Your task to perform on an android device: open app "Truecaller" (install if not already installed) and enter user name: "coauthor@gmail.com" and password: "quadrangle" Image 0: 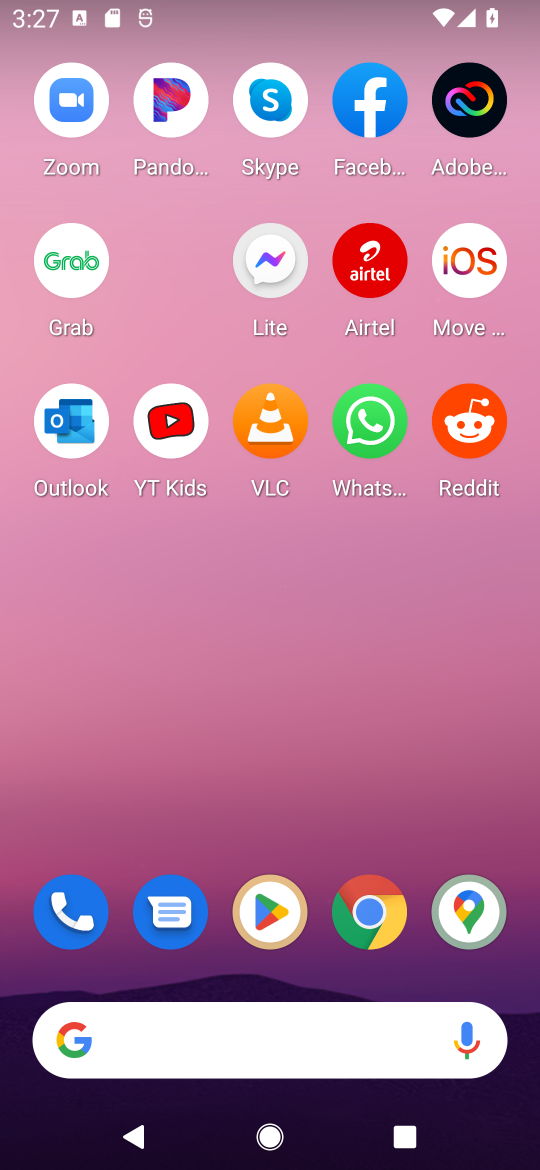
Step 0: drag from (155, 1051) to (256, 104)
Your task to perform on an android device: open app "Truecaller" (install if not already installed) and enter user name: "coauthor@gmail.com" and password: "quadrangle" Image 1: 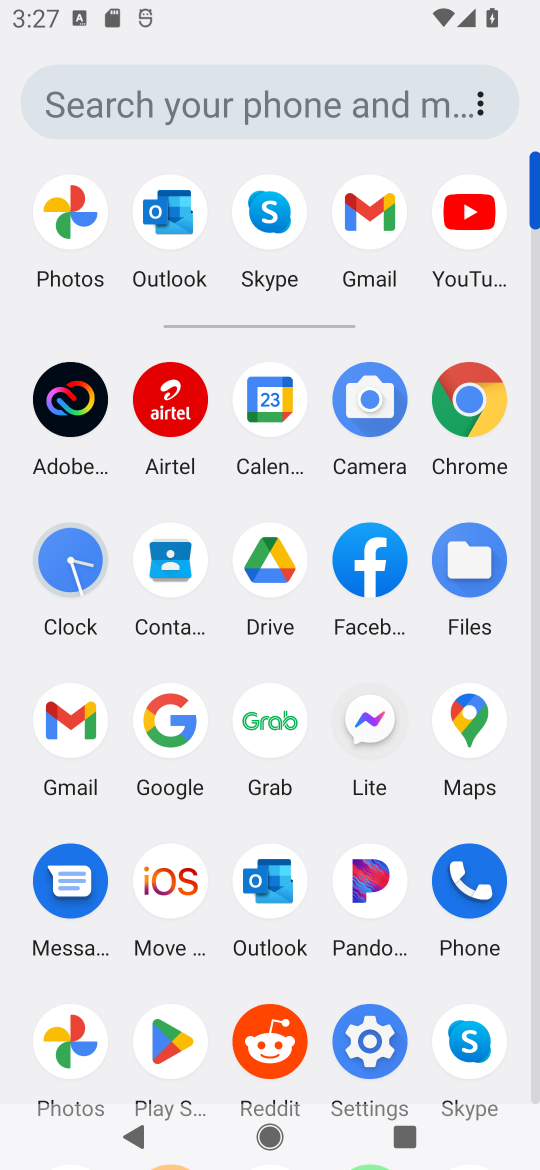
Step 1: click (169, 1051)
Your task to perform on an android device: open app "Truecaller" (install if not already installed) and enter user name: "coauthor@gmail.com" and password: "quadrangle" Image 2: 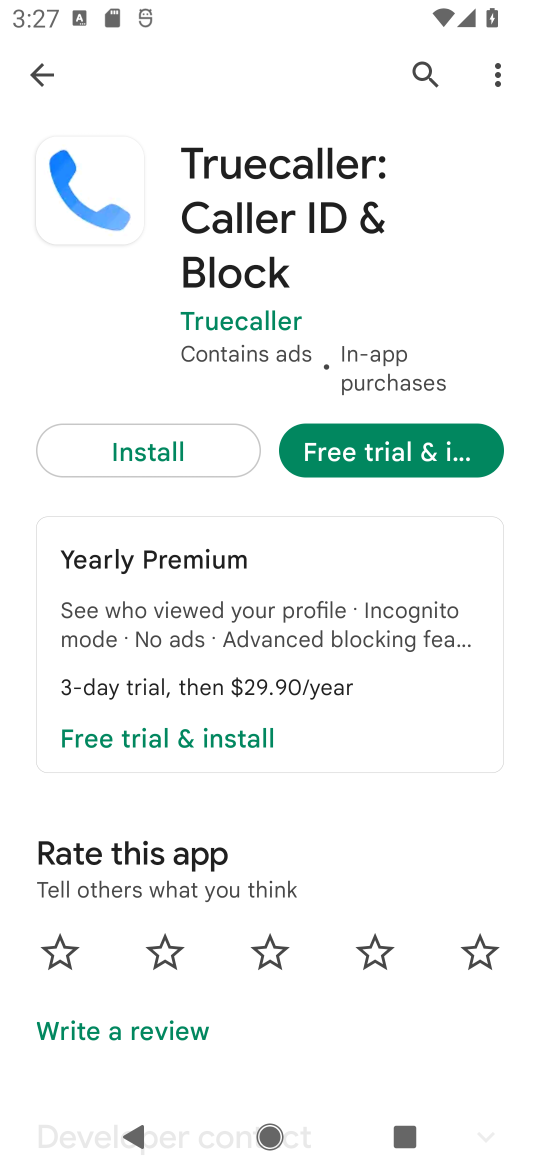
Step 2: press back button
Your task to perform on an android device: open app "Truecaller" (install if not already installed) and enter user name: "coauthor@gmail.com" and password: "quadrangle" Image 3: 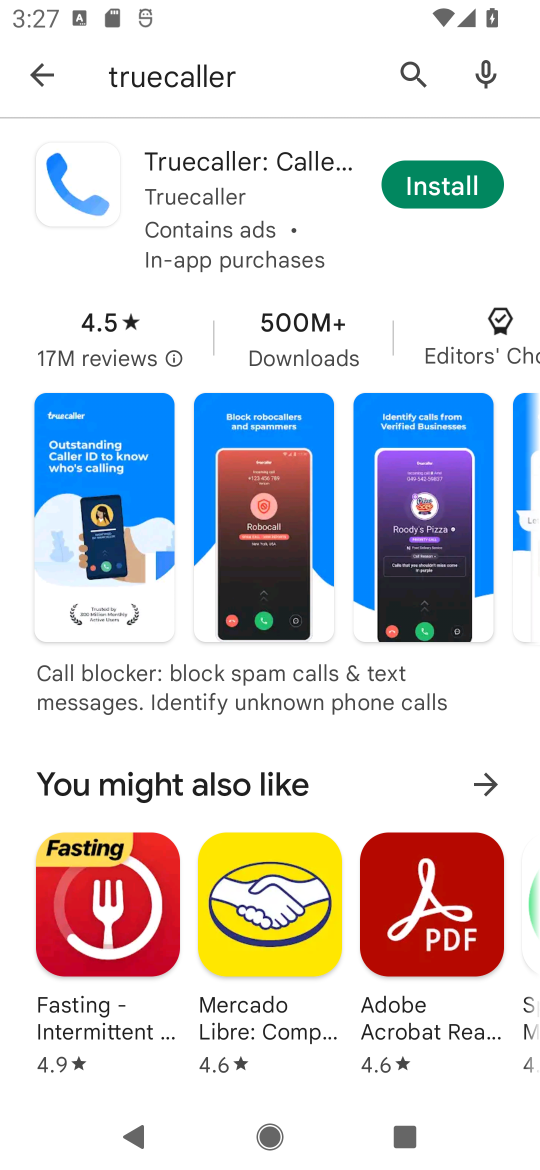
Step 3: press back button
Your task to perform on an android device: open app "Truecaller" (install if not already installed) and enter user name: "coauthor@gmail.com" and password: "quadrangle" Image 4: 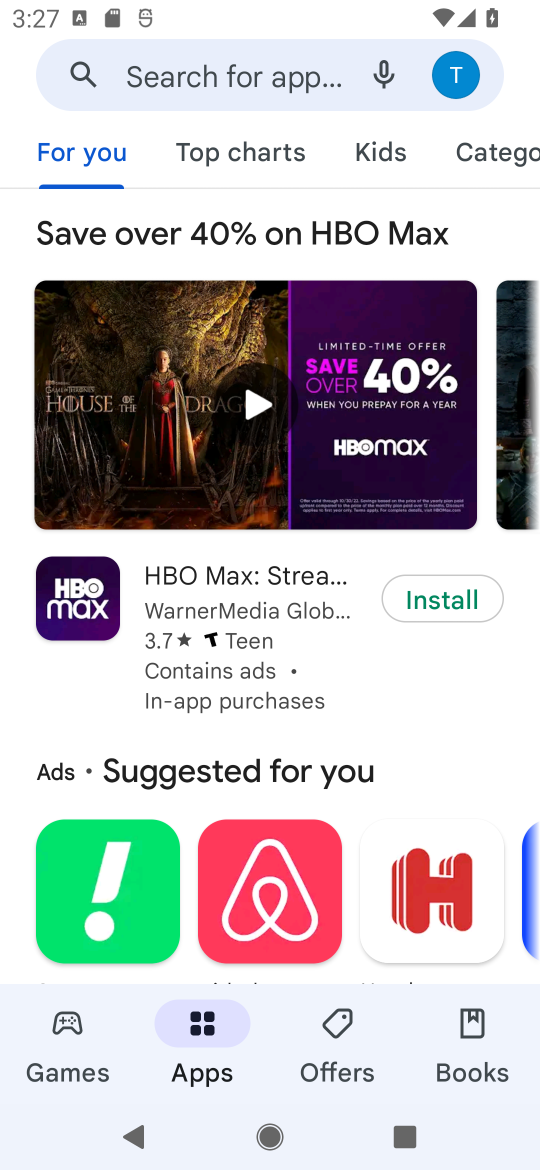
Step 4: click (278, 74)
Your task to perform on an android device: open app "Truecaller" (install if not already installed) and enter user name: "coauthor@gmail.com" and password: "quadrangle" Image 5: 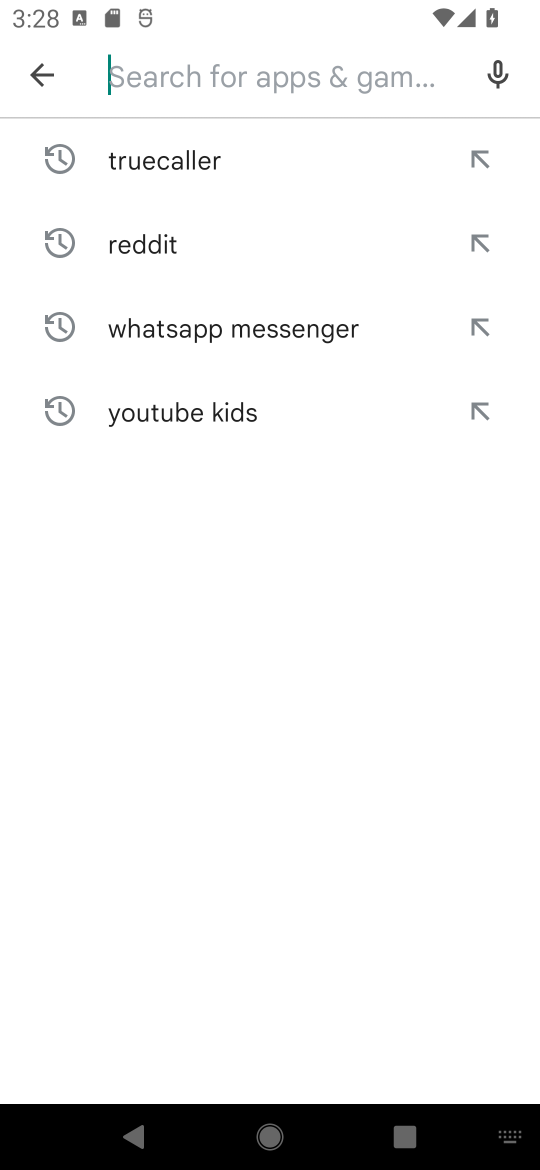
Step 5: type "Truecaller"
Your task to perform on an android device: open app "Truecaller" (install if not already installed) and enter user name: "coauthor@gmail.com" and password: "quadrangle" Image 6: 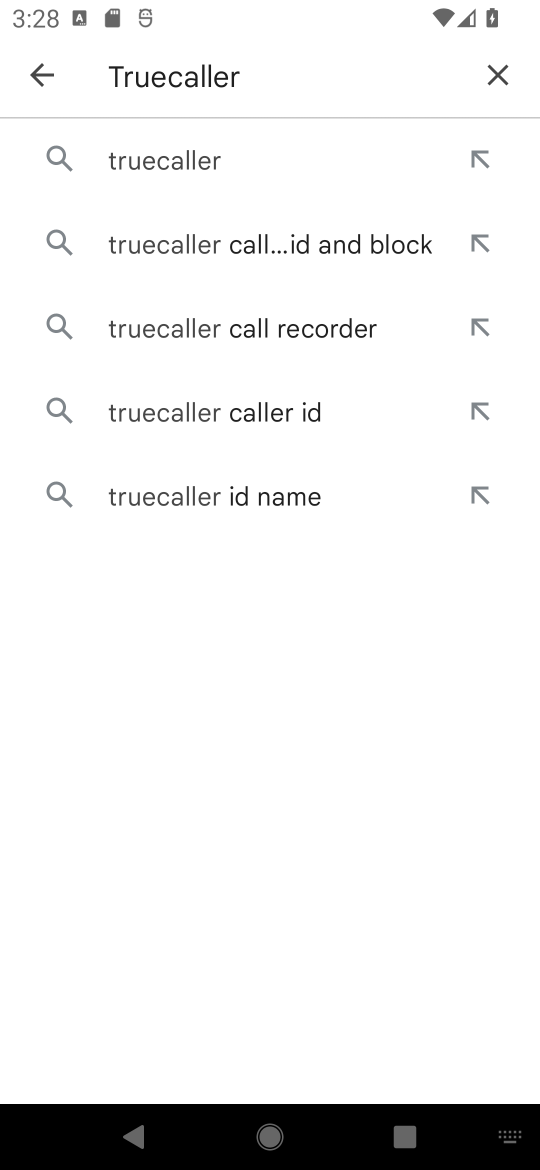
Step 6: click (206, 159)
Your task to perform on an android device: open app "Truecaller" (install if not already installed) and enter user name: "coauthor@gmail.com" and password: "quadrangle" Image 7: 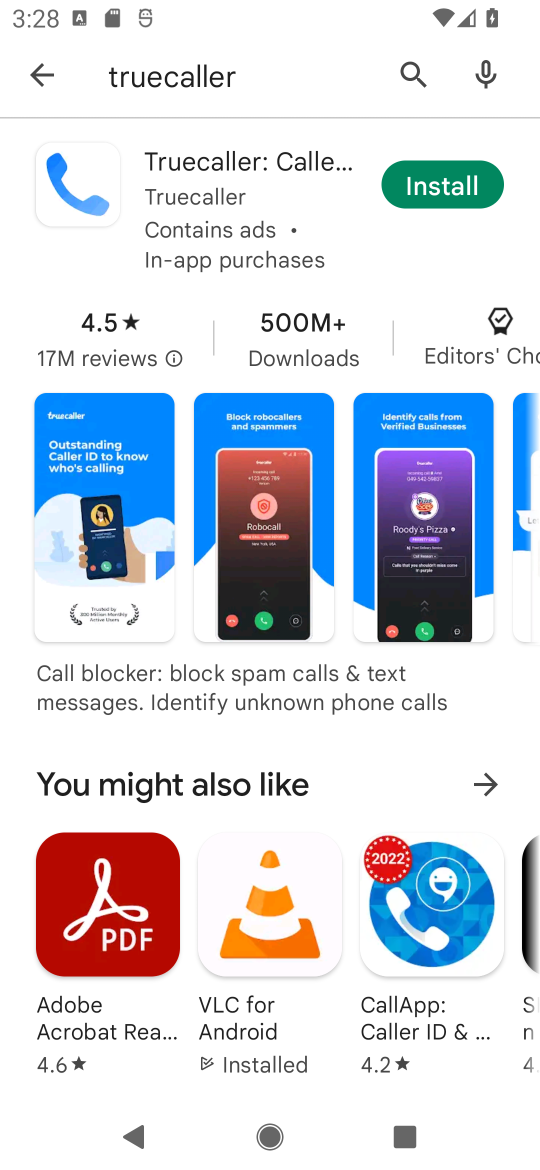
Step 7: click (448, 189)
Your task to perform on an android device: open app "Truecaller" (install if not already installed) and enter user name: "coauthor@gmail.com" and password: "quadrangle" Image 8: 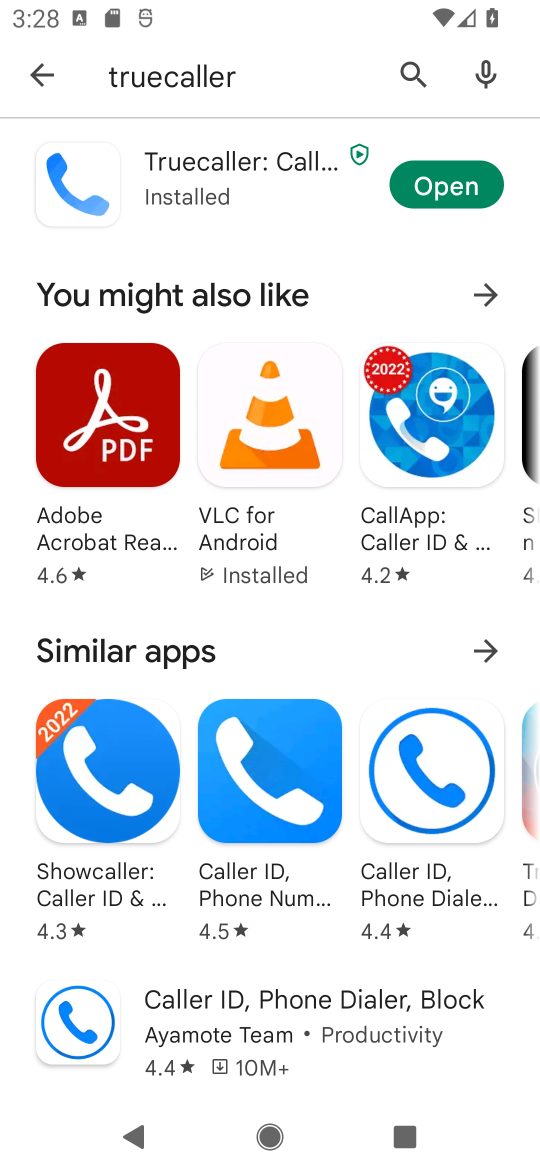
Step 8: click (448, 189)
Your task to perform on an android device: open app "Truecaller" (install if not already installed) and enter user name: "coauthor@gmail.com" and password: "quadrangle" Image 9: 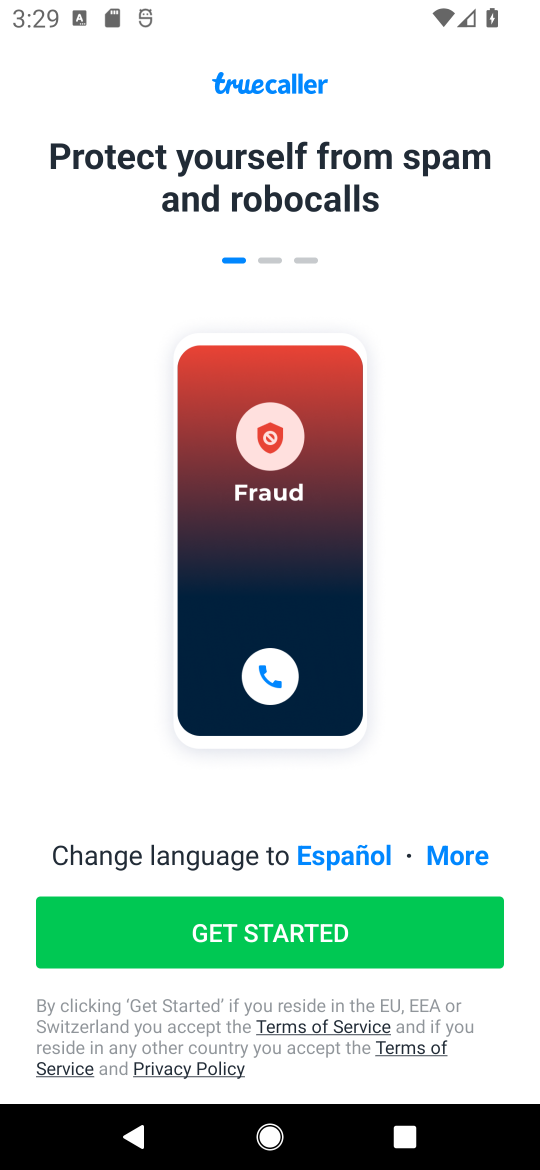
Step 9: task complete